Your task to perform on an android device: check out phone information Image 0: 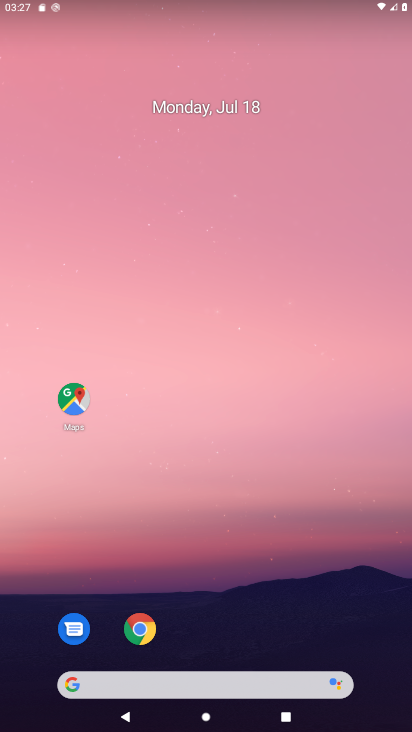
Step 0: drag from (344, 602) to (366, 79)
Your task to perform on an android device: check out phone information Image 1: 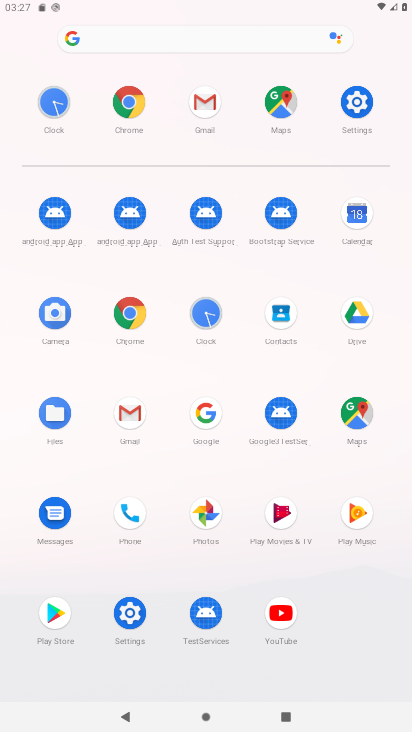
Step 1: click (135, 515)
Your task to perform on an android device: check out phone information Image 2: 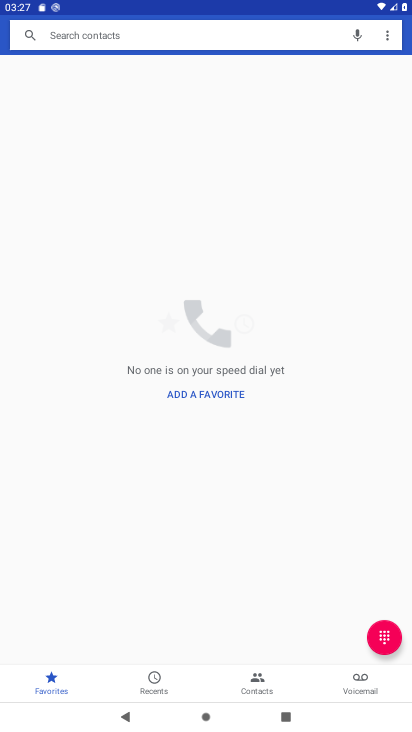
Step 2: task complete